Your task to perform on an android device: check android version Image 0: 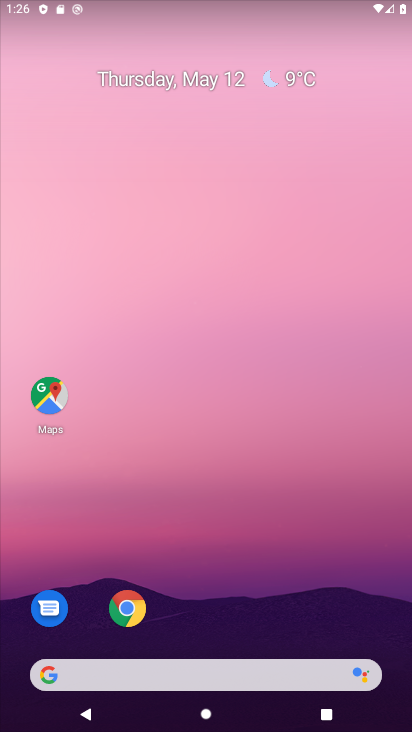
Step 0: drag from (190, 615) to (162, 154)
Your task to perform on an android device: check android version Image 1: 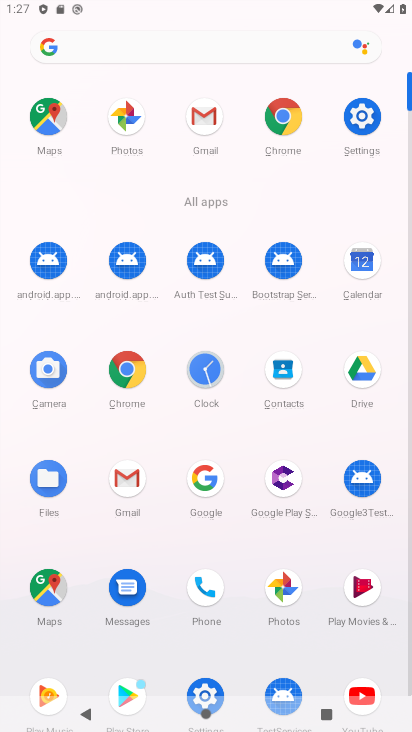
Step 1: click (370, 118)
Your task to perform on an android device: check android version Image 2: 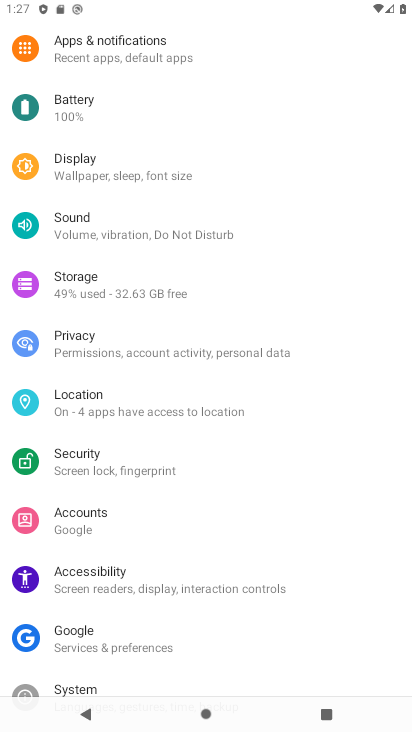
Step 2: drag from (133, 681) to (115, 480)
Your task to perform on an android device: check android version Image 3: 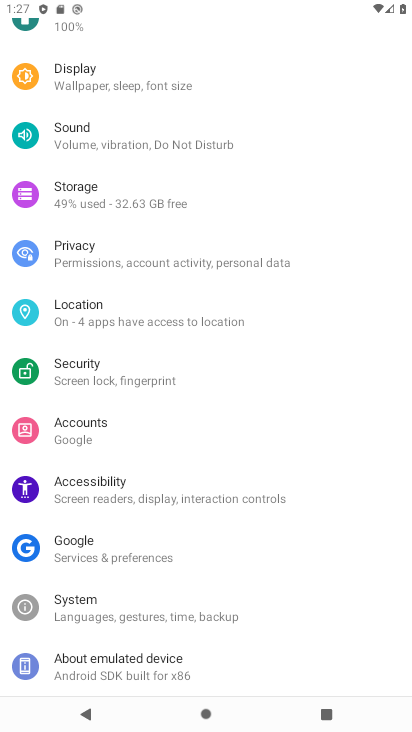
Step 3: click (82, 668)
Your task to perform on an android device: check android version Image 4: 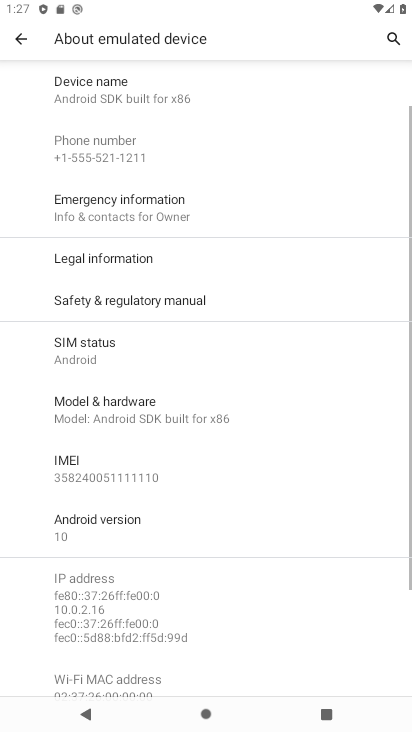
Step 4: click (103, 523)
Your task to perform on an android device: check android version Image 5: 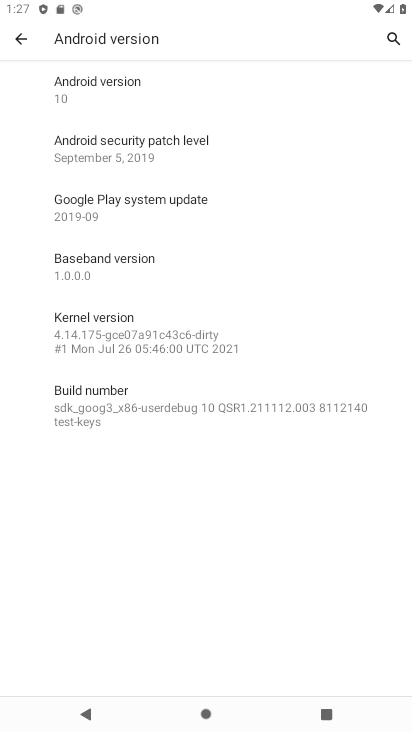
Step 5: task complete